Your task to perform on an android device: change the clock display to analog Image 0: 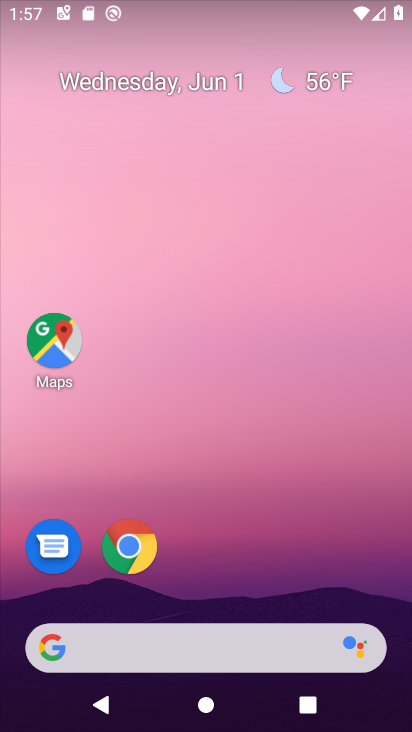
Step 0: drag from (137, 699) to (135, 120)
Your task to perform on an android device: change the clock display to analog Image 1: 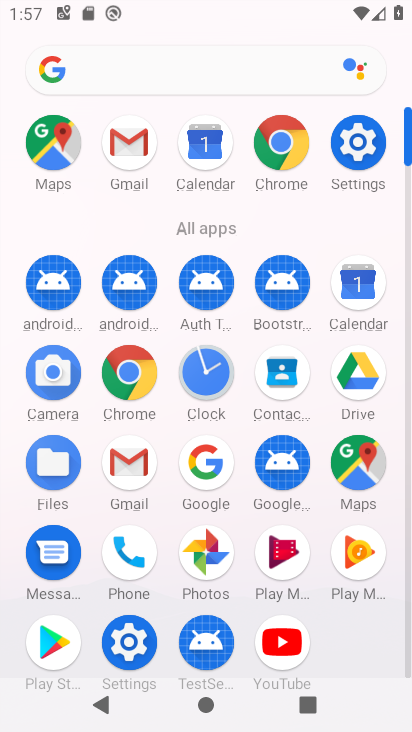
Step 1: click (206, 381)
Your task to perform on an android device: change the clock display to analog Image 2: 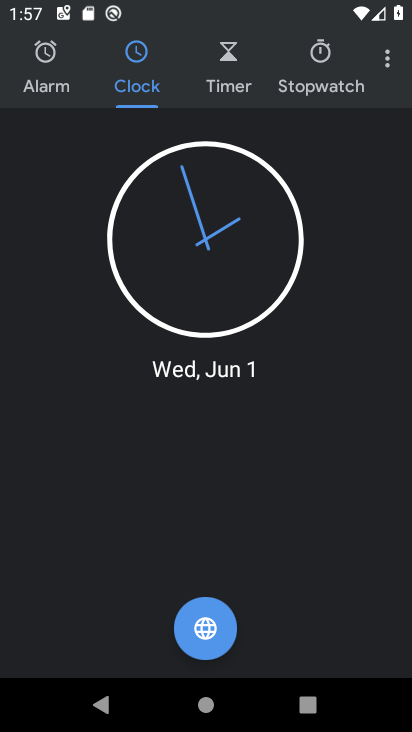
Step 2: click (384, 57)
Your task to perform on an android device: change the clock display to analog Image 3: 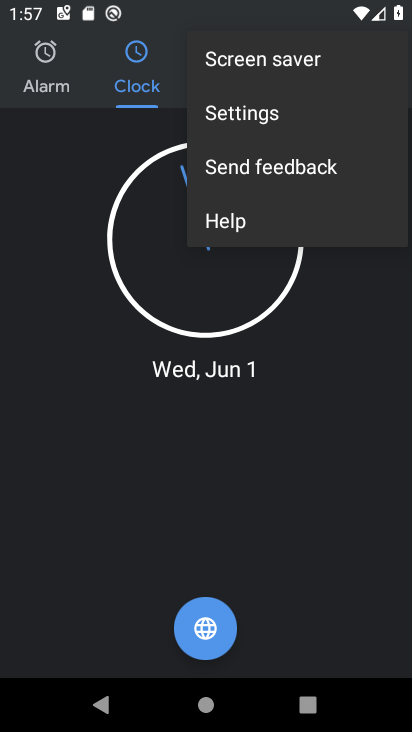
Step 3: click (255, 116)
Your task to perform on an android device: change the clock display to analog Image 4: 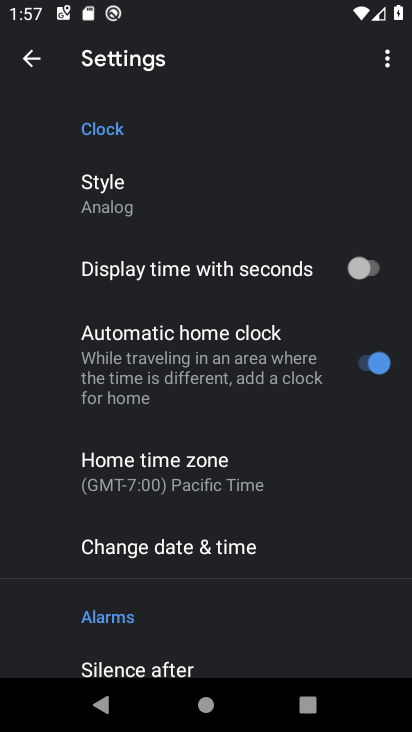
Step 4: click (118, 184)
Your task to perform on an android device: change the clock display to analog Image 5: 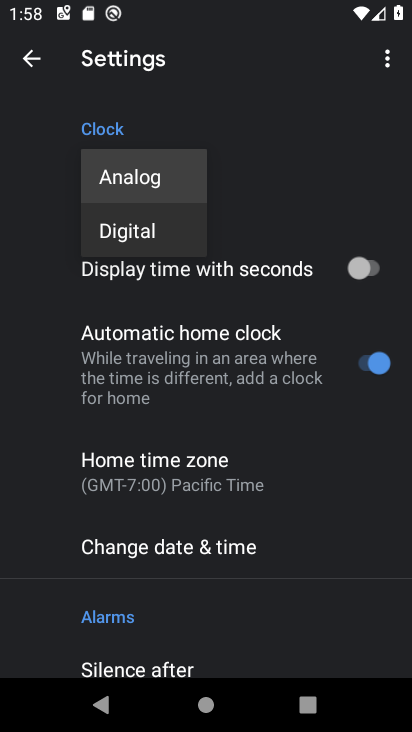
Step 5: task complete